Your task to perform on an android device: Go to settings Image 0: 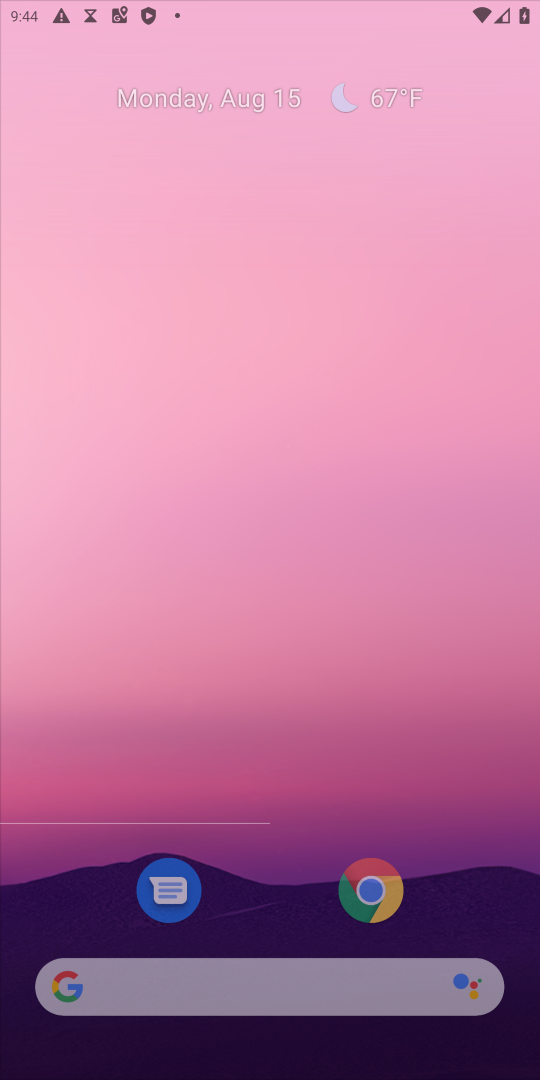
Step 0: press home button
Your task to perform on an android device: Go to settings Image 1: 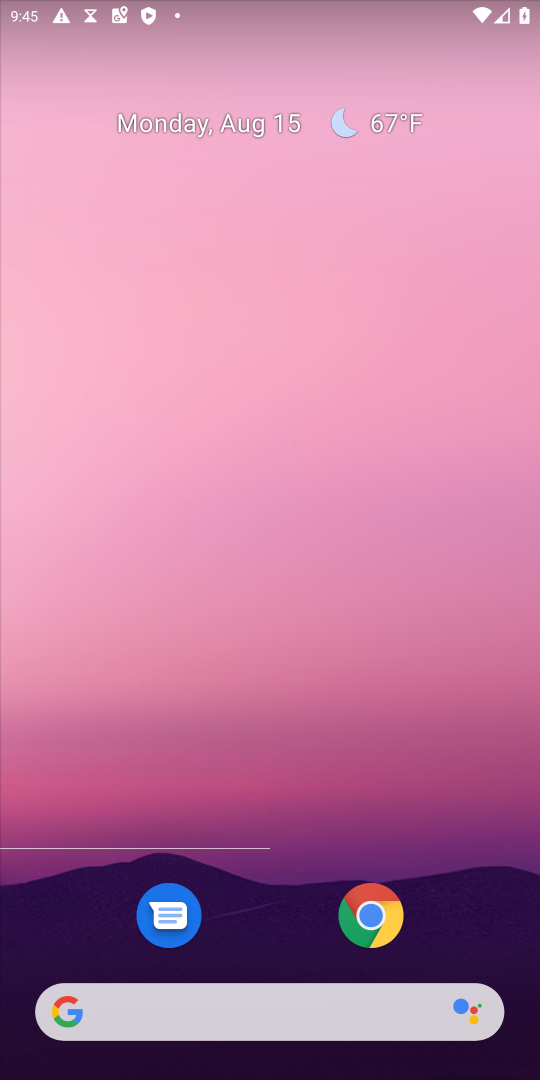
Step 1: drag from (278, 919) to (281, 173)
Your task to perform on an android device: Go to settings Image 2: 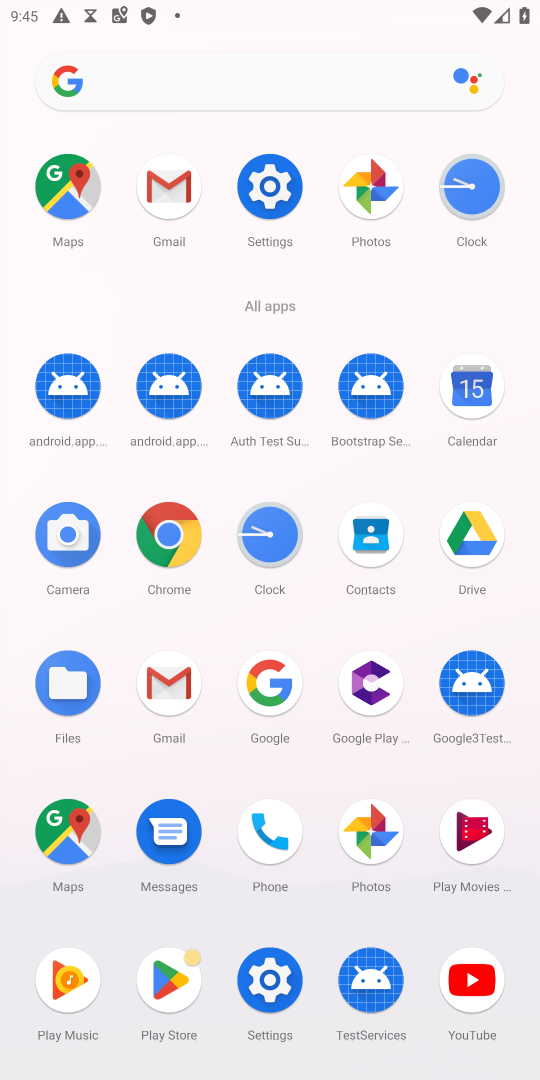
Step 2: click (263, 207)
Your task to perform on an android device: Go to settings Image 3: 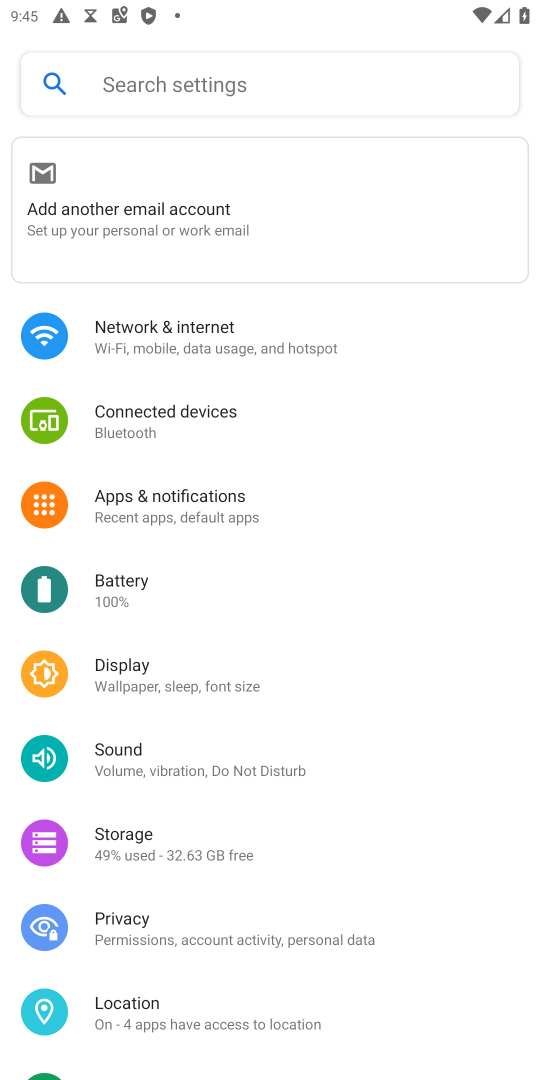
Step 3: task complete